Your task to perform on an android device: turn smart compose on in the gmail app Image 0: 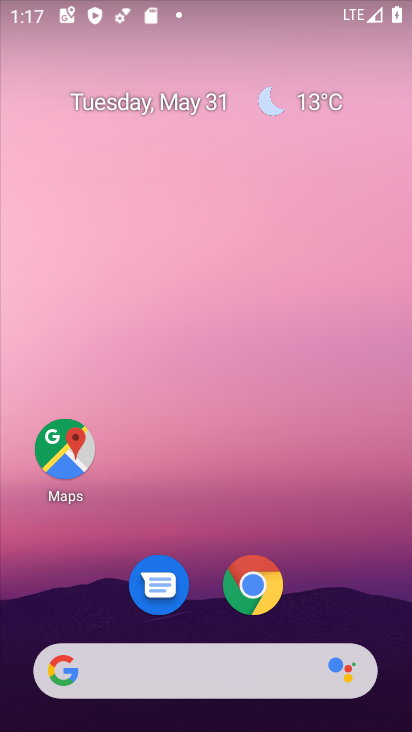
Step 0: drag from (211, 499) to (180, 32)
Your task to perform on an android device: turn smart compose on in the gmail app Image 1: 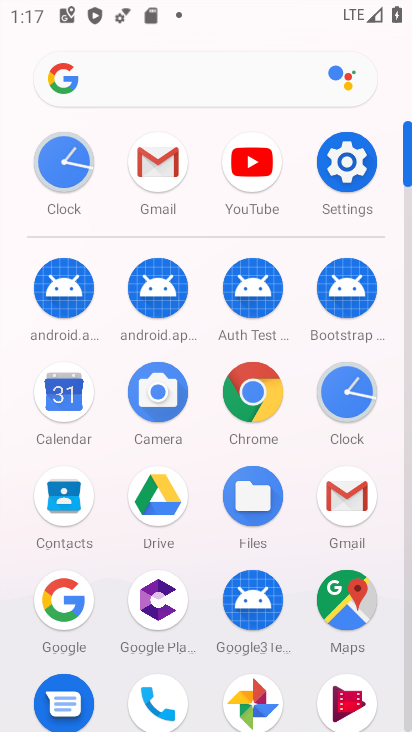
Step 1: click (166, 164)
Your task to perform on an android device: turn smart compose on in the gmail app Image 2: 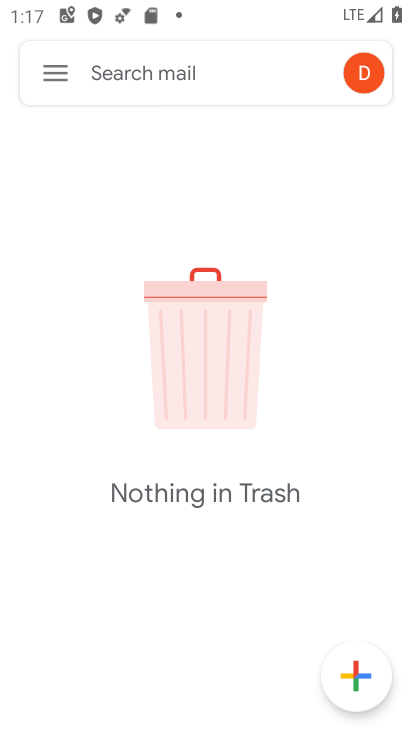
Step 2: click (49, 76)
Your task to perform on an android device: turn smart compose on in the gmail app Image 3: 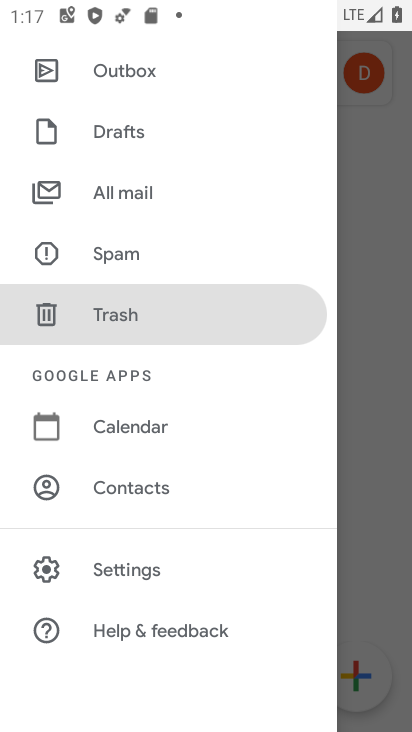
Step 3: click (146, 576)
Your task to perform on an android device: turn smart compose on in the gmail app Image 4: 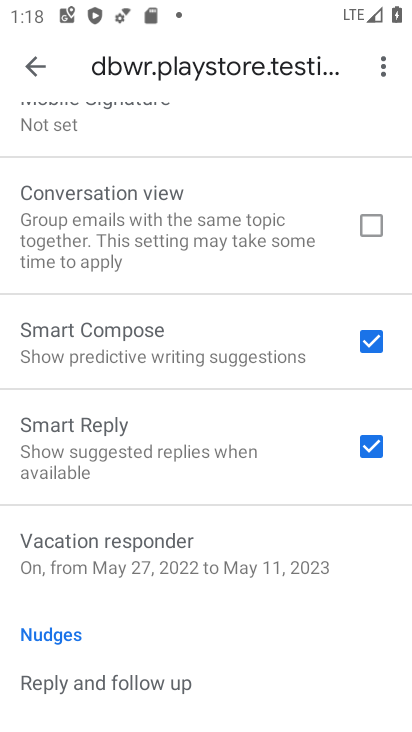
Step 4: task complete